Your task to perform on an android device: Show me the alarms in the clock app Image 0: 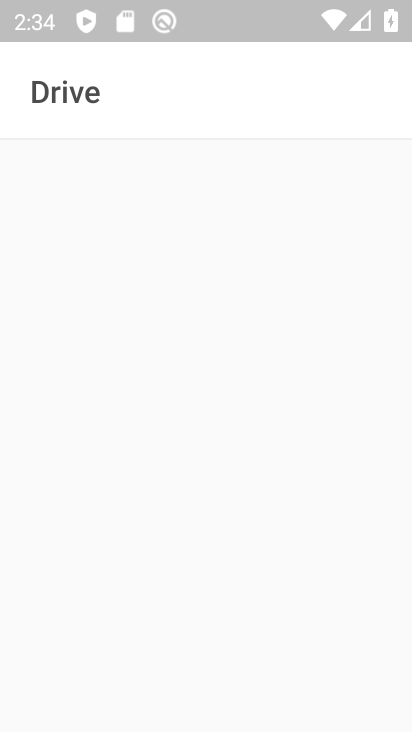
Step 0: press home button
Your task to perform on an android device: Show me the alarms in the clock app Image 1: 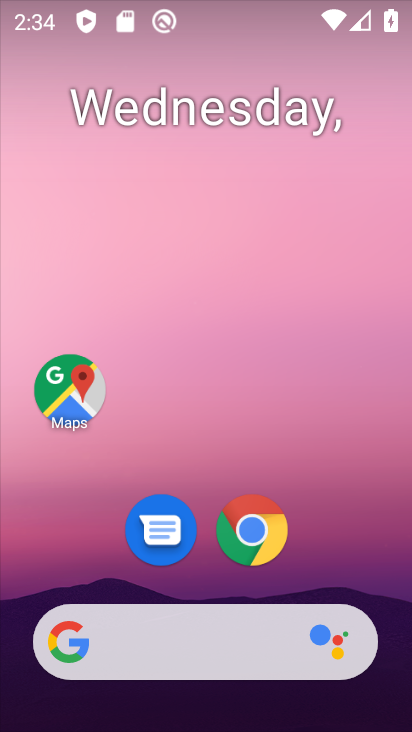
Step 1: drag from (62, 588) to (213, 150)
Your task to perform on an android device: Show me the alarms in the clock app Image 2: 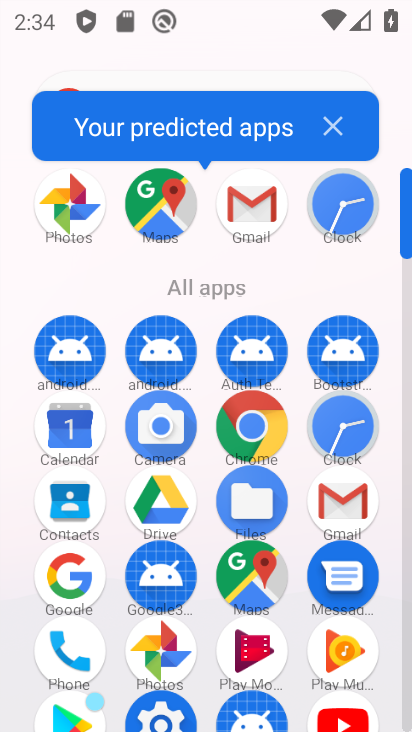
Step 2: click (363, 420)
Your task to perform on an android device: Show me the alarms in the clock app Image 3: 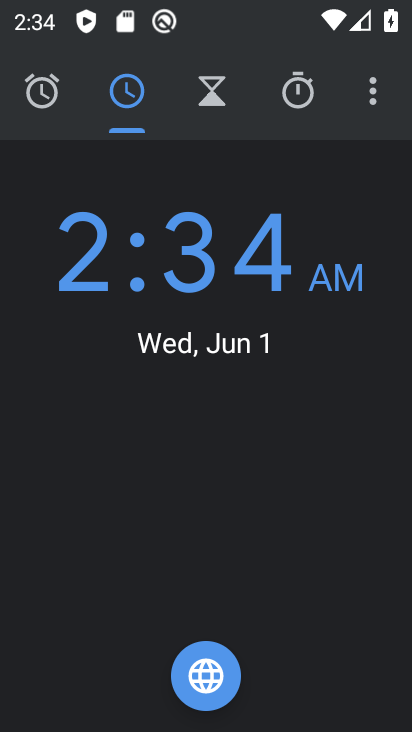
Step 3: click (47, 110)
Your task to perform on an android device: Show me the alarms in the clock app Image 4: 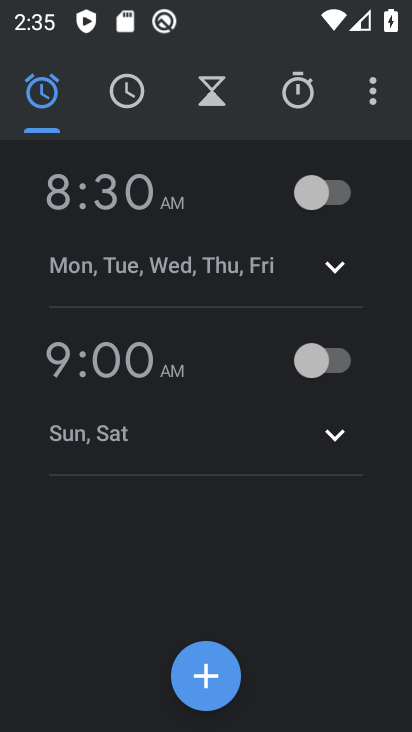
Step 4: task complete